Your task to perform on an android device: Open calendar and show me the third week of next month Image 0: 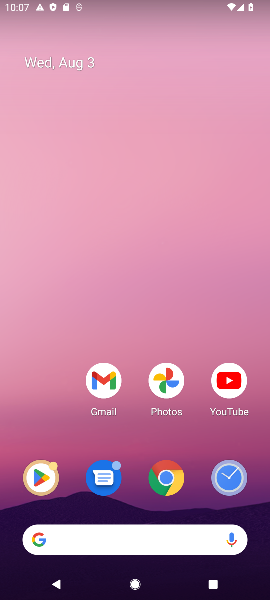
Step 0: drag from (124, 497) to (94, 160)
Your task to perform on an android device: Open calendar and show me the third week of next month Image 1: 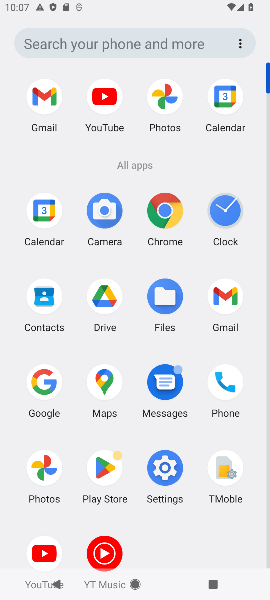
Step 1: click (54, 209)
Your task to perform on an android device: Open calendar and show me the third week of next month Image 2: 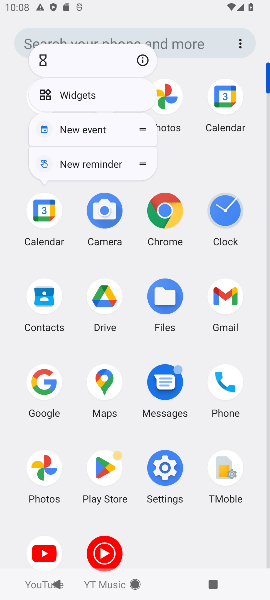
Step 2: click (132, 59)
Your task to perform on an android device: Open calendar and show me the third week of next month Image 3: 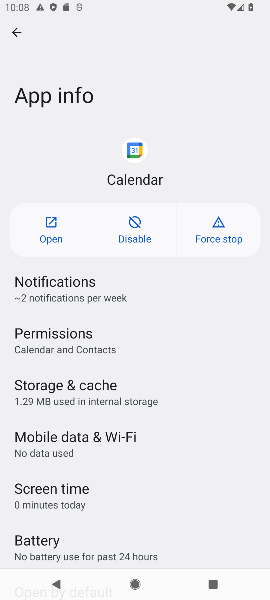
Step 3: click (54, 218)
Your task to perform on an android device: Open calendar and show me the third week of next month Image 4: 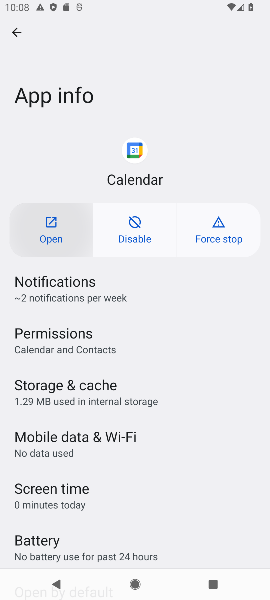
Step 4: click (54, 218)
Your task to perform on an android device: Open calendar and show me the third week of next month Image 5: 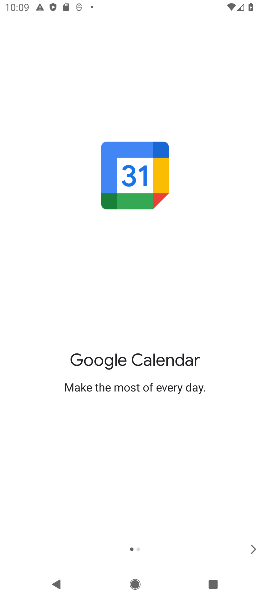
Step 5: click (265, 555)
Your task to perform on an android device: Open calendar and show me the third week of next month Image 6: 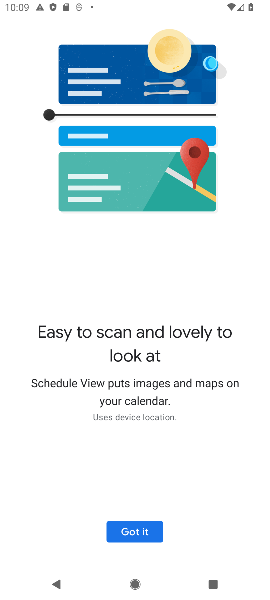
Step 6: click (260, 555)
Your task to perform on an android device: Open calendar and show me the third week of next month Image 7: 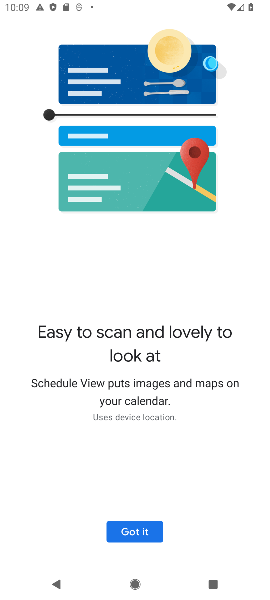
Step 7: click (139, 526)
Your task to perform on an android device: Open calendar and show me the third week of next month Image 8: 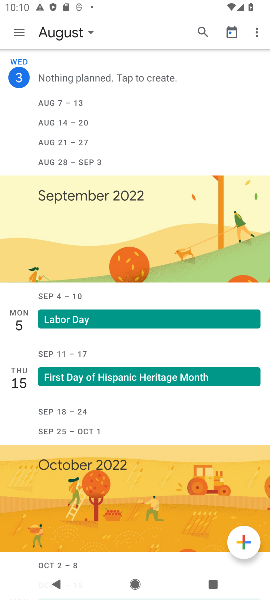
Step 8: click (62, 31)
Your task to perform on an android device: Open calendar and show me the third week of next month Image 9: 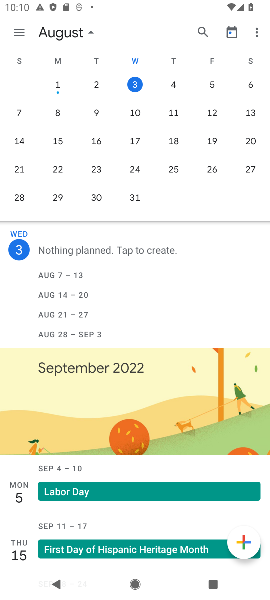
Step 9: drag from (214, 117) to (11, 179)
Your task to perform on an android device: Open calendar and show me the third week of next month Image 10: 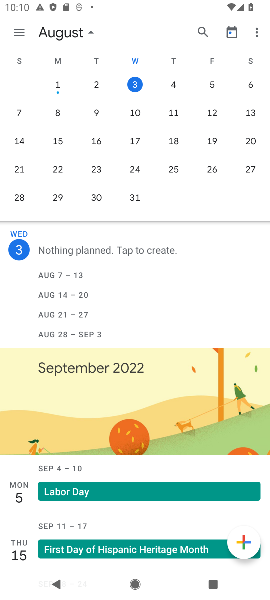
Step 10: drag from (244, 135) to (0, 184)
Your task to perform on an android device: Open calendar and show me the third week of next month Image 11: 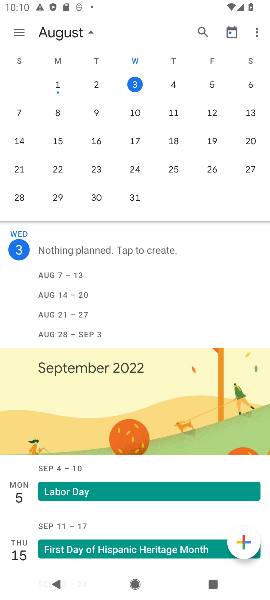
Step 11: drag from (235, 136) to (0, 179)
Your task to perform on an android device: Open calendar and show me the third week of next month Image 12: 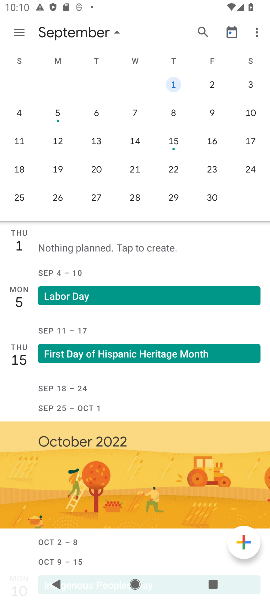
Step 12: click (175, 174)
Your task to perform on an android device: Open calendar and show me the third week of next month Image 13: 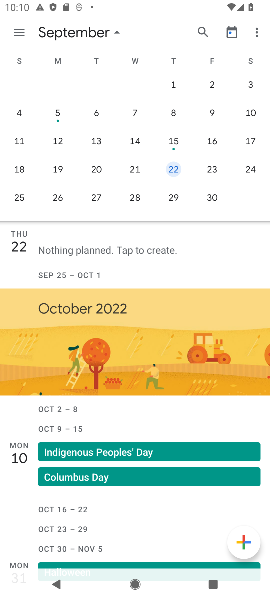
Step 13: task complete